Your task to perform on an android device: Search for the best-rated coffee table on Crate & Barrel Image 0: 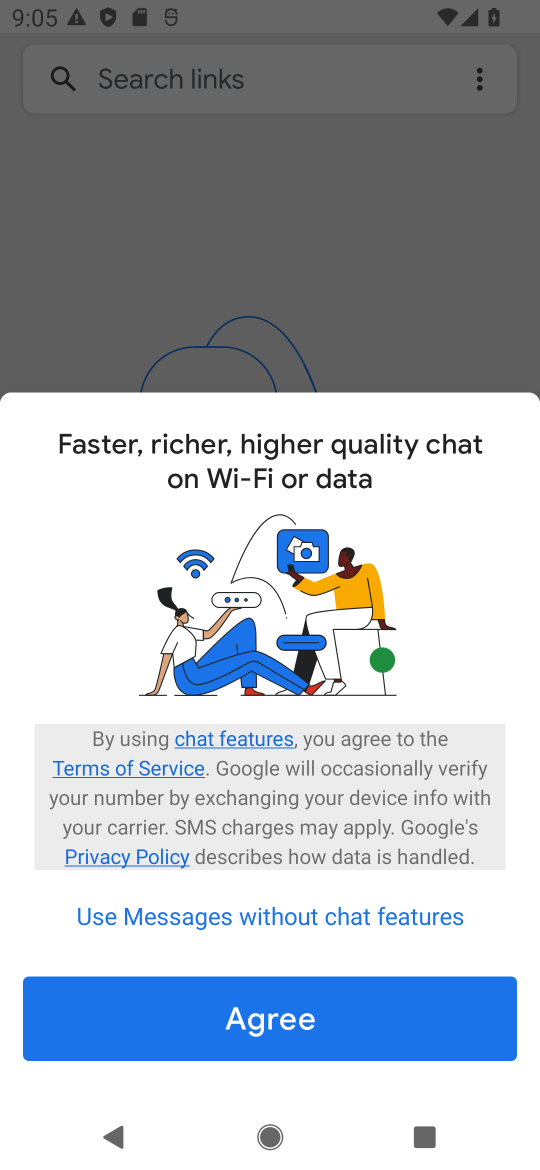
Step 0: press home button
Your task to perform on an android device: Search for the best-rated coffee table on Crate & Barrel Image 1: 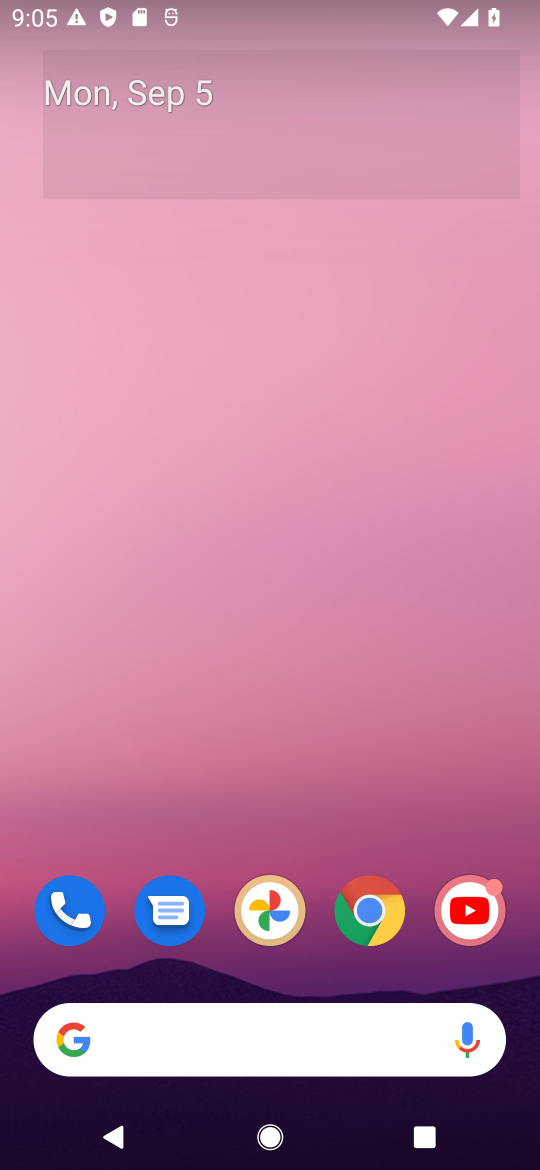
Step 1: click (345, 894)
Your task to perform on an android device: Search for the best-rated coffee table on Crate & Barrel Image 2: 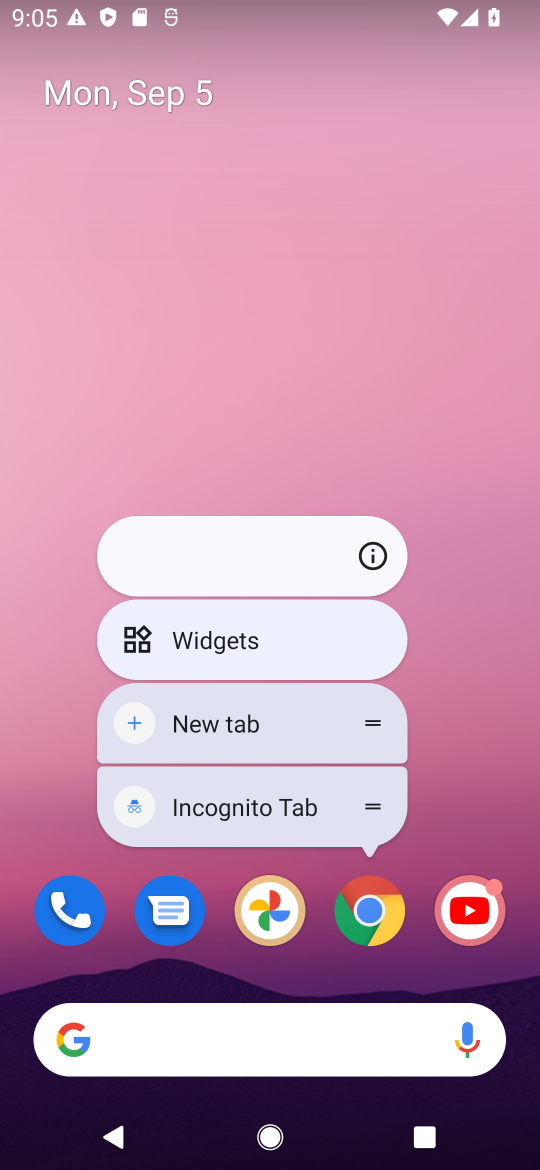
Step 2: click (345, 894)
Your task to perform on an android device: Search for the best-rated coffee table on Crate & Barrel Image 3: 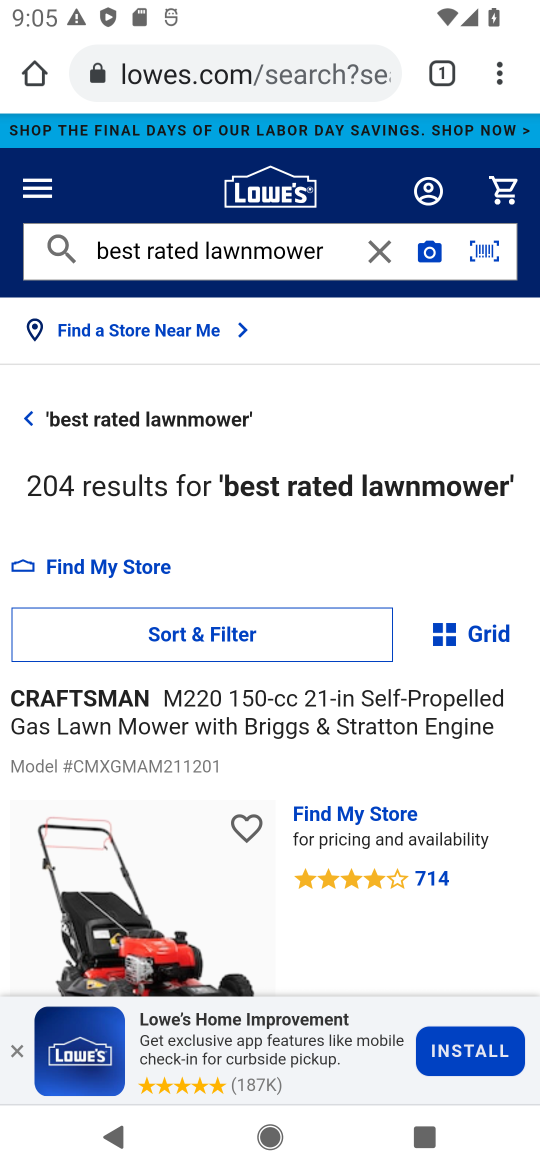
Step 3: click (289, 87)
Your task to perform on an android device: Search for the best-rated coffee table on Crate & Barrel Image 4: 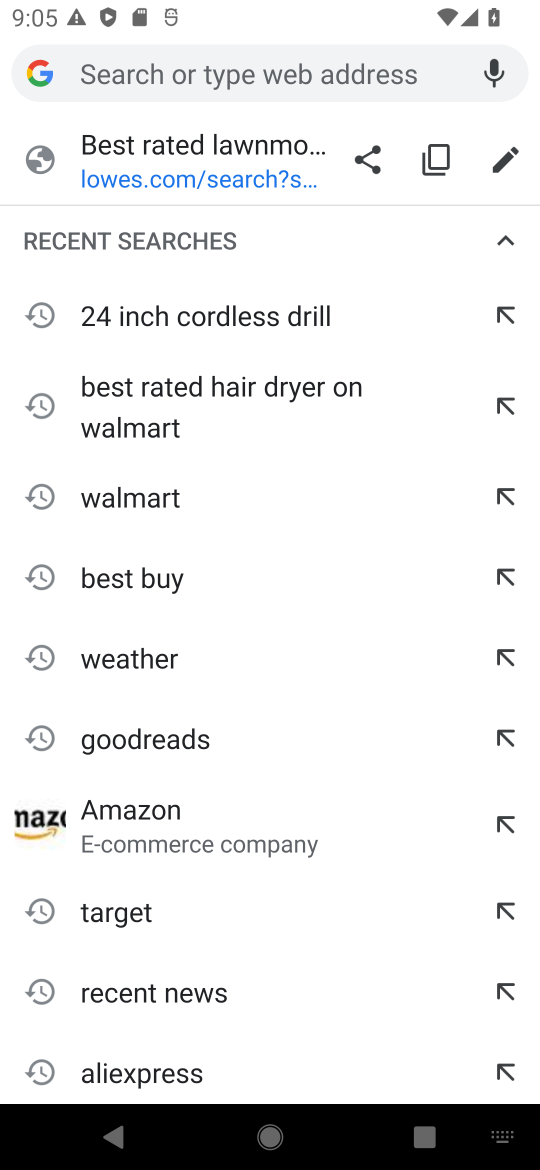
Step 4: type "crate and barrel"
Your task to perform on an android device: Search for the best-rated coffee table on Crate & Barrel Image 5: 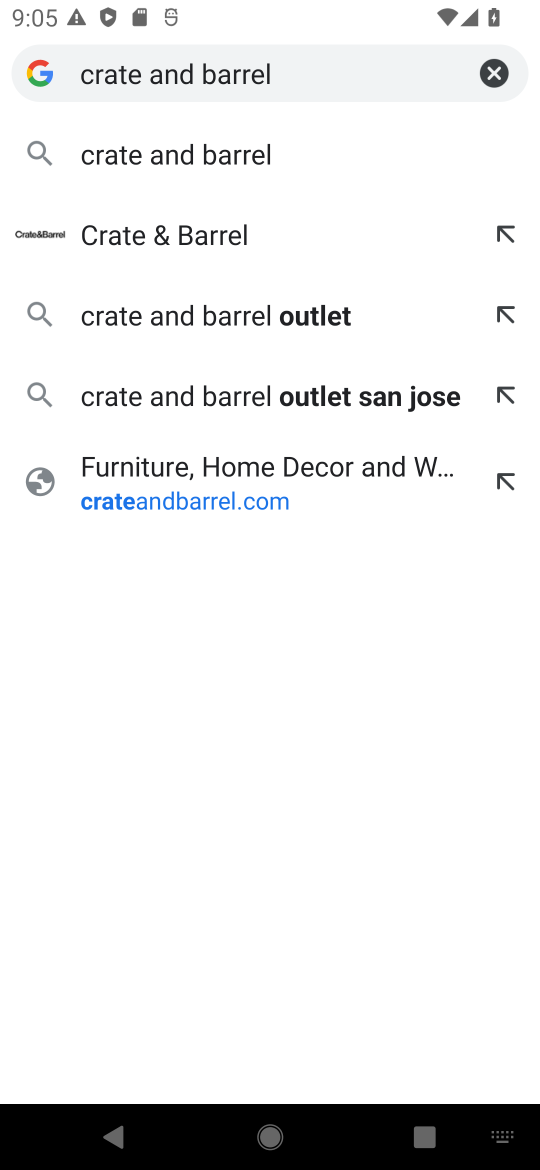
Step 5: click (268, 466)
Your task to perform on an android device: Search for the best-rated coffee table on Crate & Barrel Image 6: 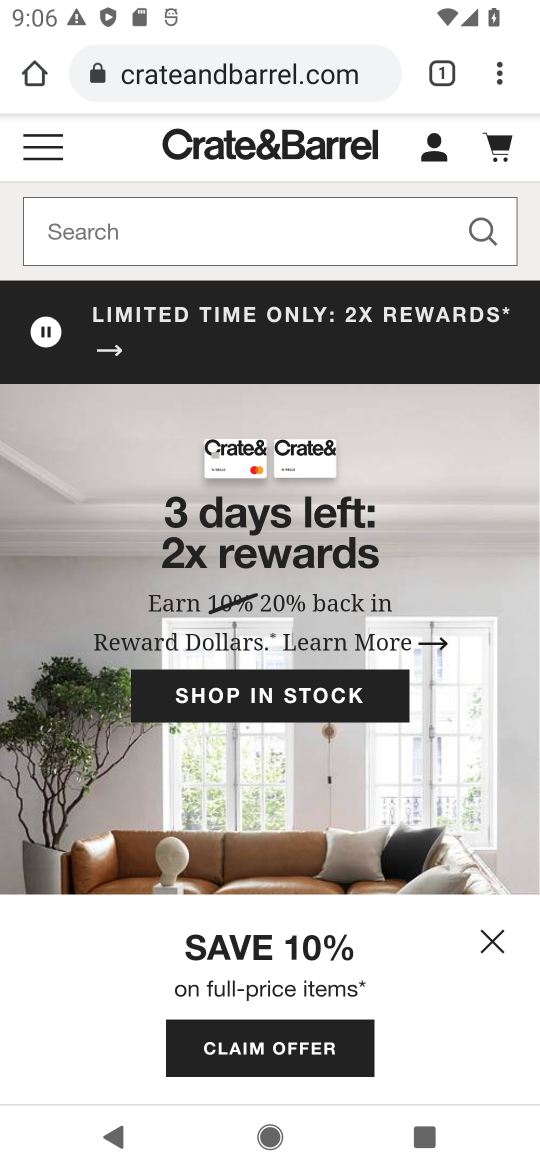
Step 6: click (181, 271)
Your task to perform on an android device: Search for the best-rated coffee table on Crate & Barrel Image 7: 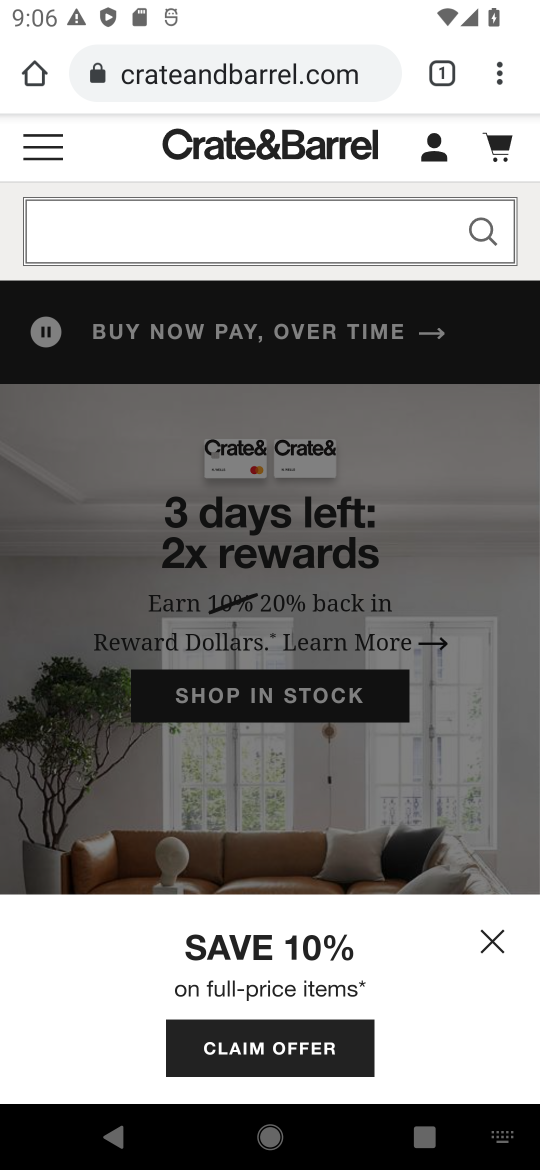
Step 7: type "best rated coffee table"
Your task to perform on an android device: Search for the best-rated coffee table on Crate & Barrel Image 8: 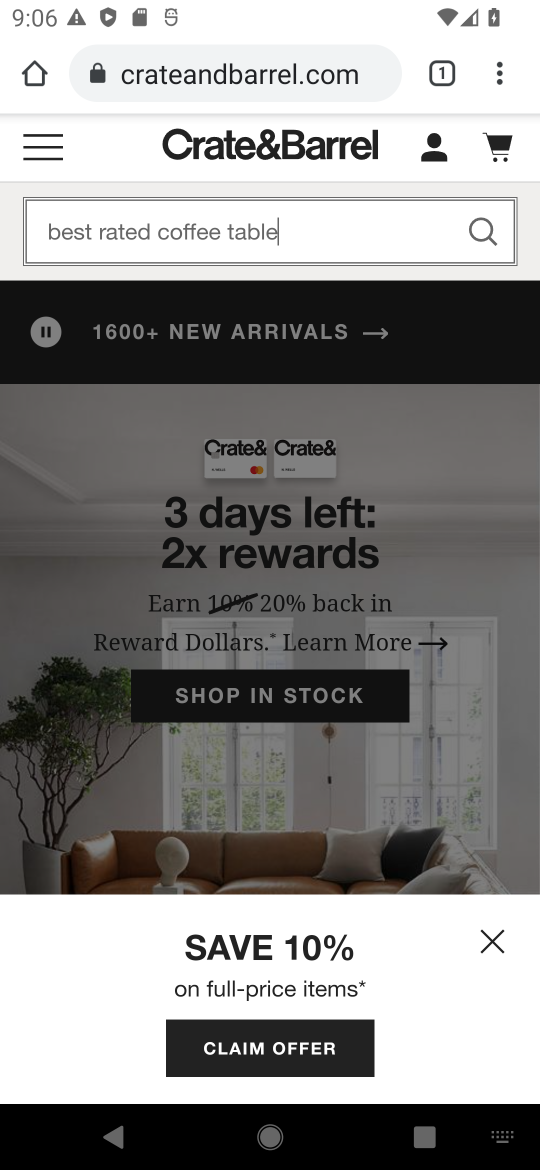
Step 8: press enter
Your task to perform on an android device: Search for the best-rated coffee table on Crate & Barrel Image 9: 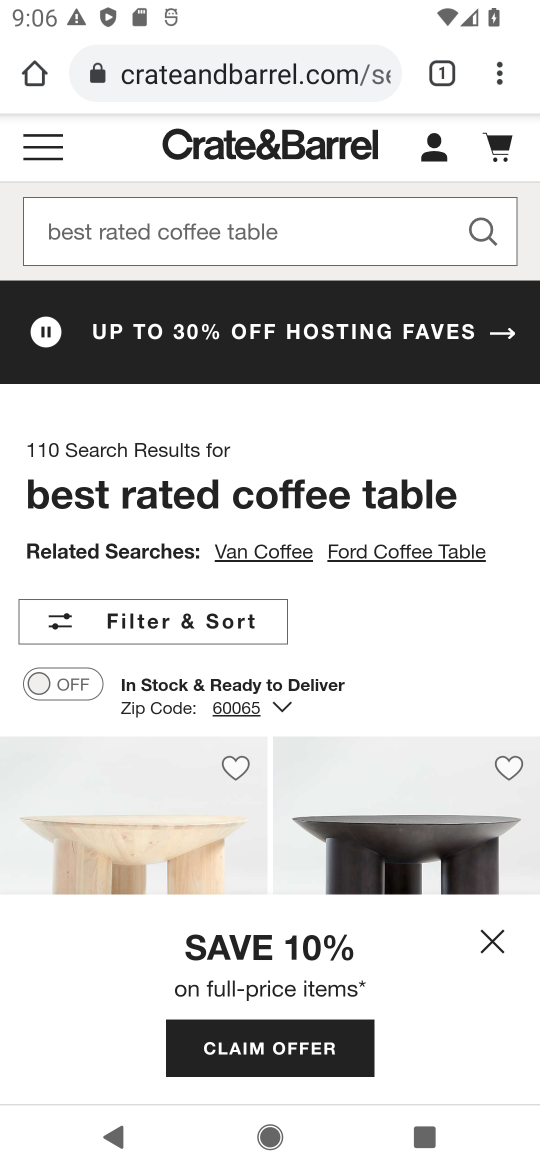
Step 9: press enter
Your task to perform on an android device: Search for the best-rated coffee table on Crate & Barrel Image 10: 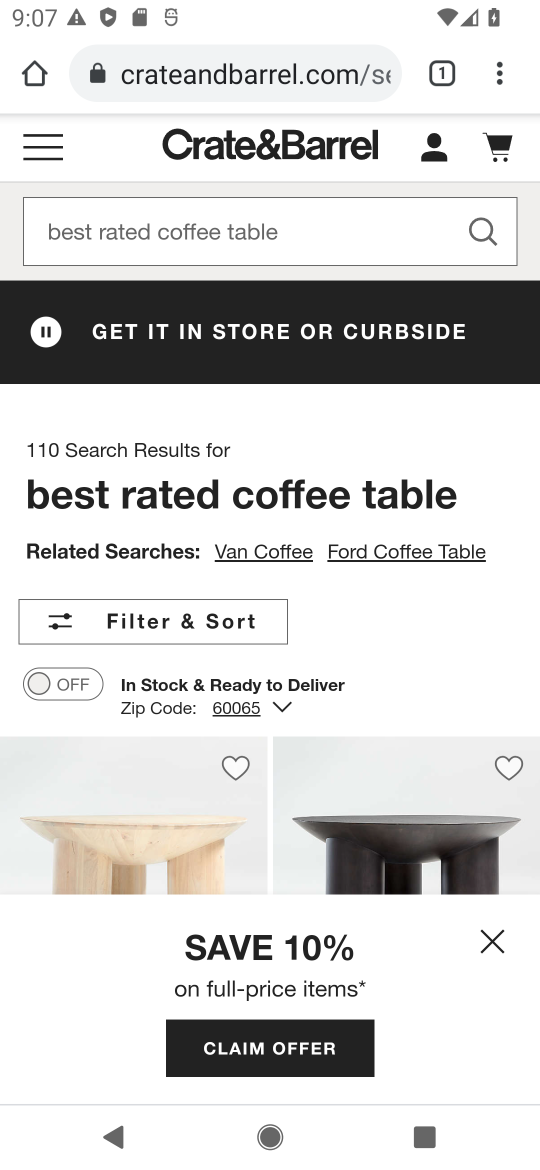
Step 10: task complete